Your task to perform on an android device: stop showing notifications on the lock screen Image 0: 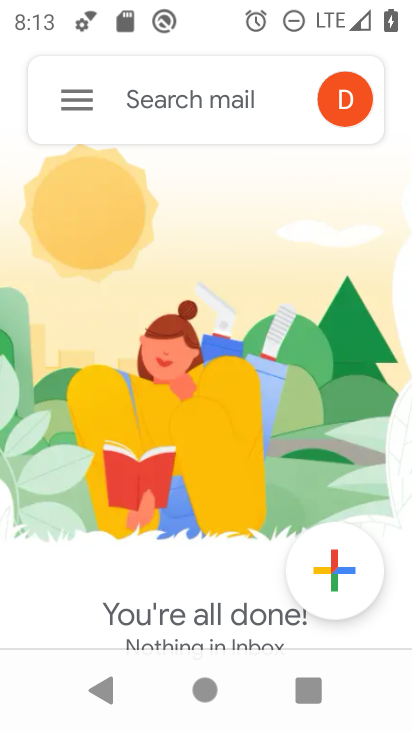
Step 0: press home button
Your task to perform on an android device: stop showing notifications on the lock screen Image 1: 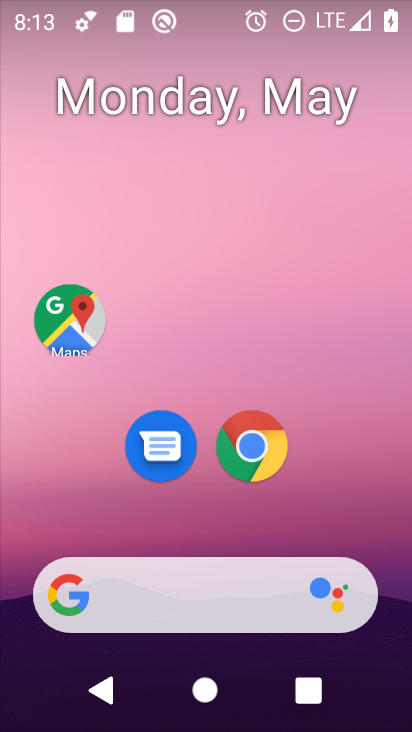
Step 1: drag from (321, 490) to (236, 86)
Your task to perform on an android device: stop showing notifications on the lock screen Image 2: 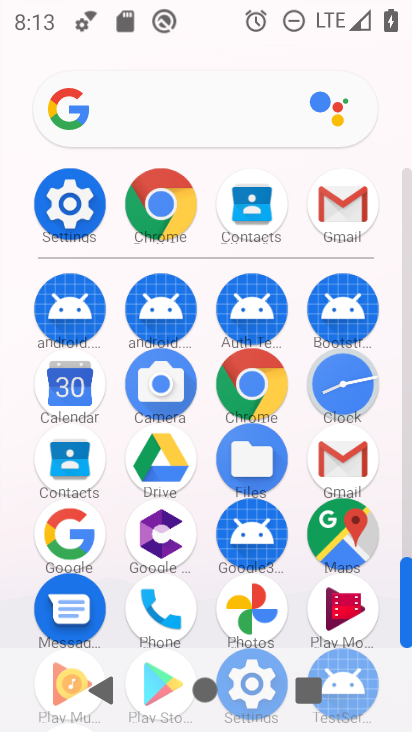
Step 2: click (72, 197)
Your task to perform on an android device: stop showing notifications on the lock screen Image 3: 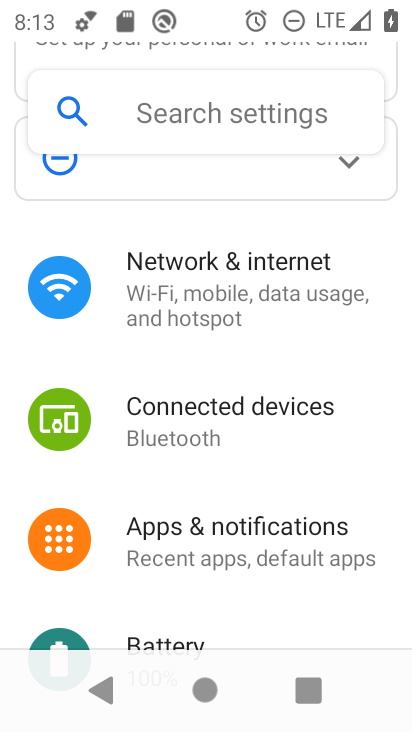
Step 3: click (257, 540)
Your task to perform on an android device: stop showing notifications on the lock screen Image 4: 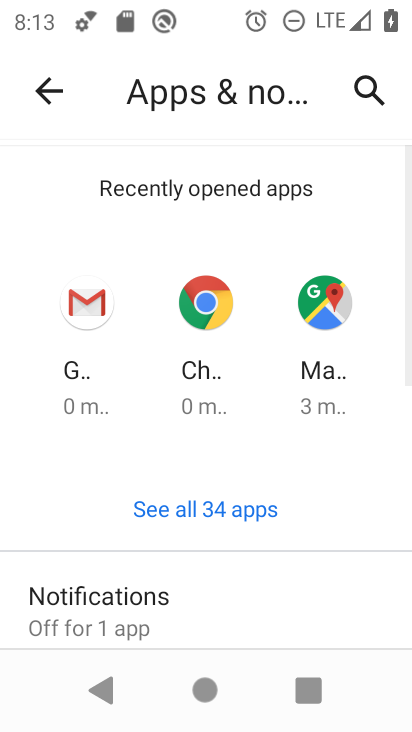
Step 4: drag from (236, 539) to (189, 223)
Your task to perform on an android device: stop showing notifications on the lock screen Image 5: 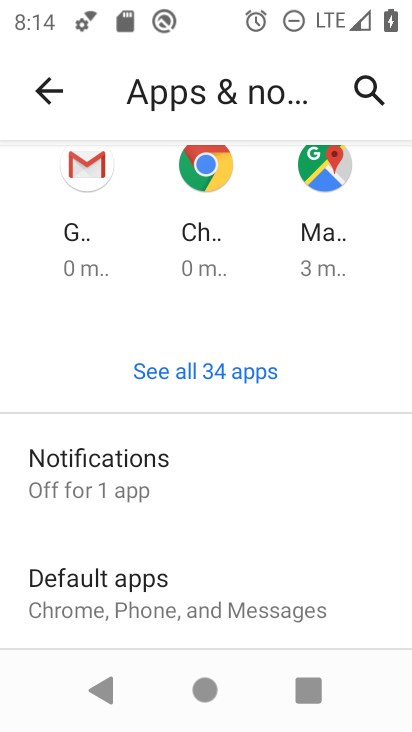
Step 5: click (118, 462)
Your task to perform on an android device: stop showing notifications on the lock screen Image 6: 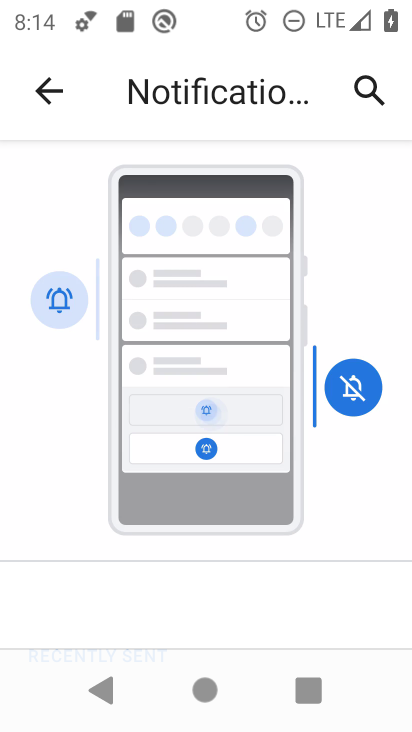
Step 6: drag from (332, 547) to (323, 238)
Your task to perform on an android device: stop showing notifications on the lock screen Image 7: 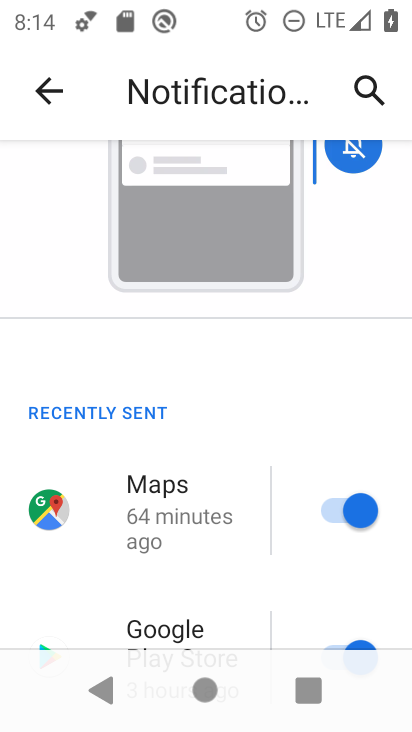
Step 7: drag from (241, 467) to (195, 184)
Your task to perform on an android device: stop showing notifications on the lock screen Image 8: 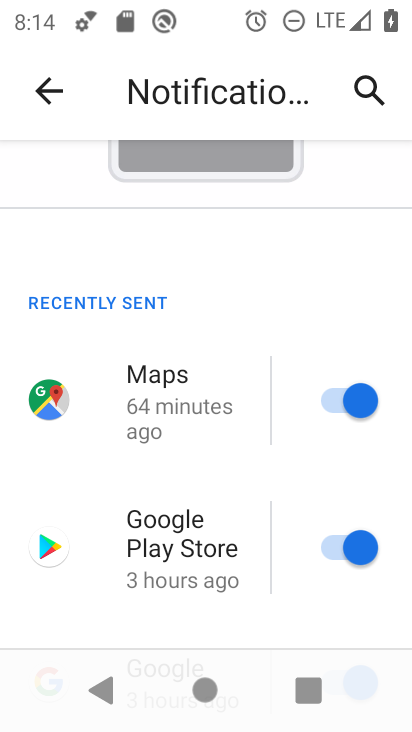
Step 8: drag from (213, 466) to (194, 232)
Your task to perform on an android device: stop showing notifications on the lock screen Image 9: 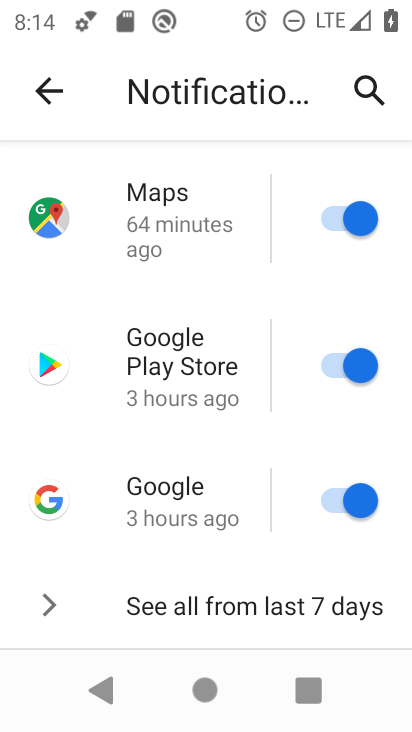
Step 9: drag from (238, 436) to (219, 166)
Your task to perform on an android device: stop showing notifications on the lock screen Image 10: 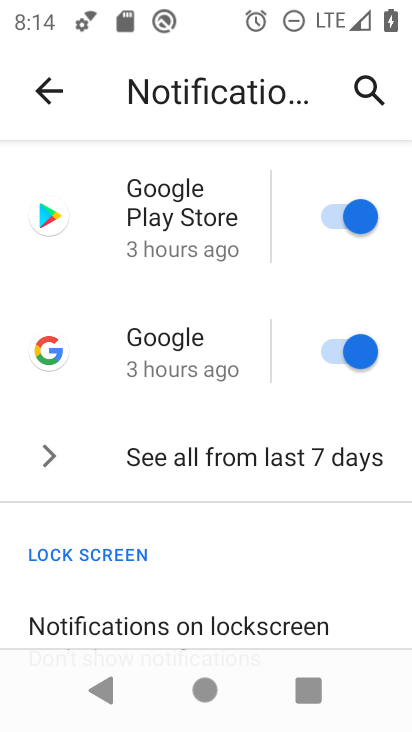
Step 10: click (183, 618)
Your task to perform on an android device: stop showing notifications on the lock screen Image 11: 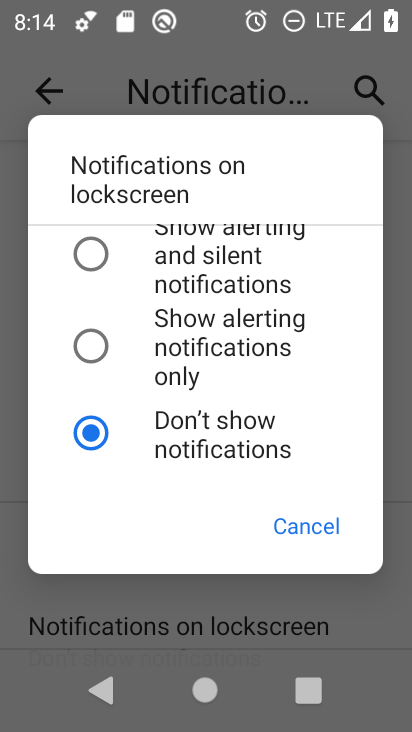
Step 11: task complete